Your task to perform on an android device: open a bookmark in the chrome app Image 0: 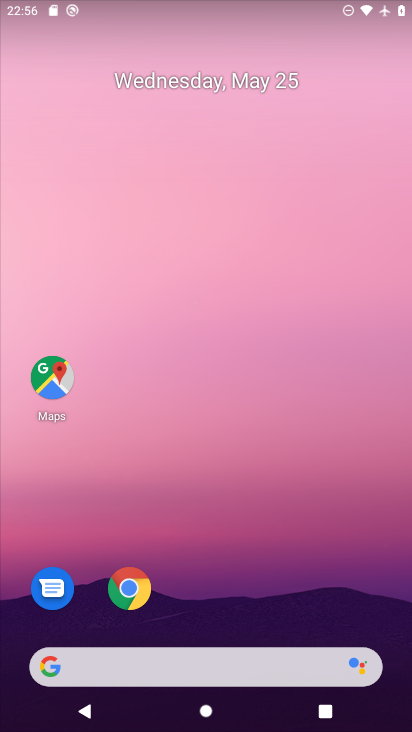
Step 0: click (122, 587)
Your task to perform on an android device: open a bookmark in the chrome app Image 1: 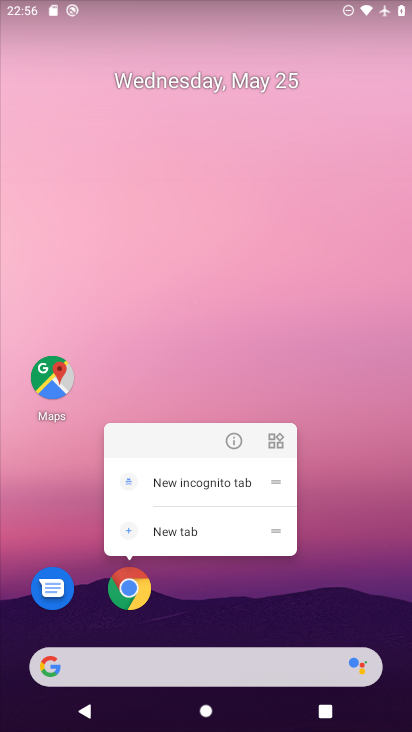
Step 1: click (119, 593)
Your task to perform on an android device: open a bookmark in the chrome app Image 2: 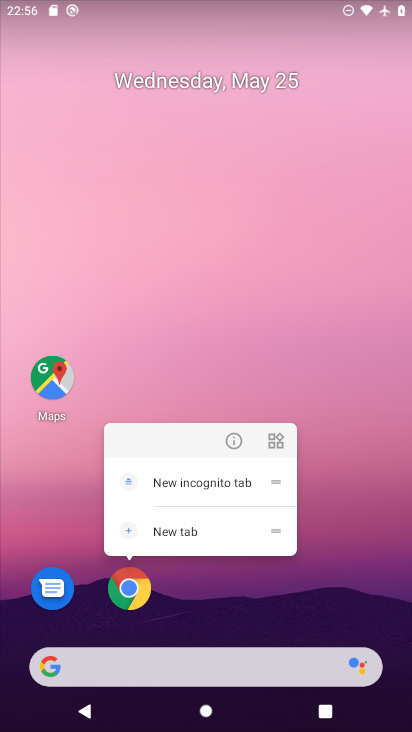
Step 2: click (267, 585)
Your task to perform on an android device: open a bookmark in the chrome app Image 3: 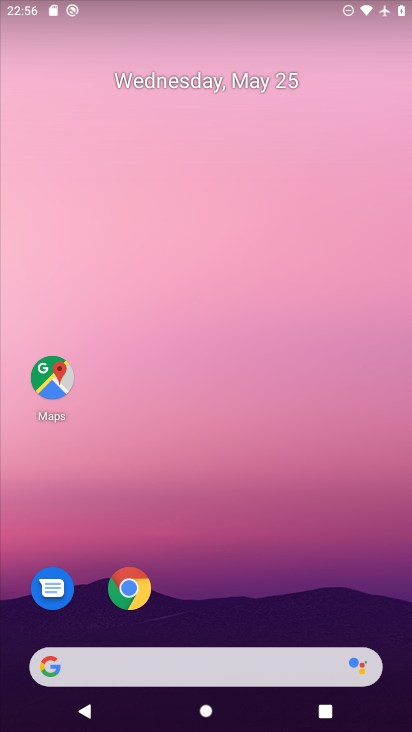
Step 3: drag from (273, 592) to (353, 65)
Your task to perform on an android device: open a bookmark in the chrome app Image 4: 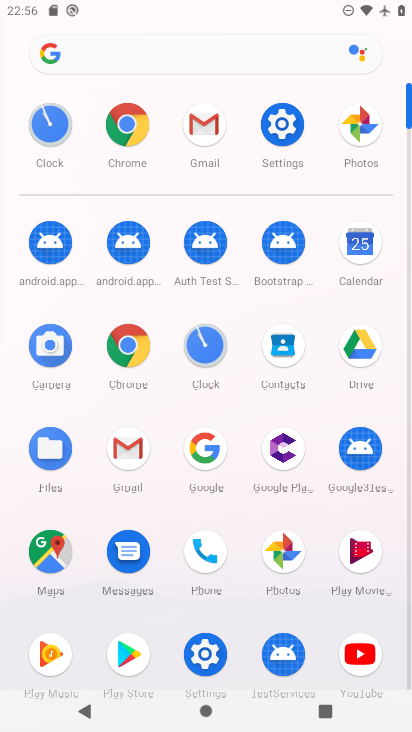
Step 4: click (124, 346)
Your task to perform on an android device: open a bookmark in the chrome app Image 5: 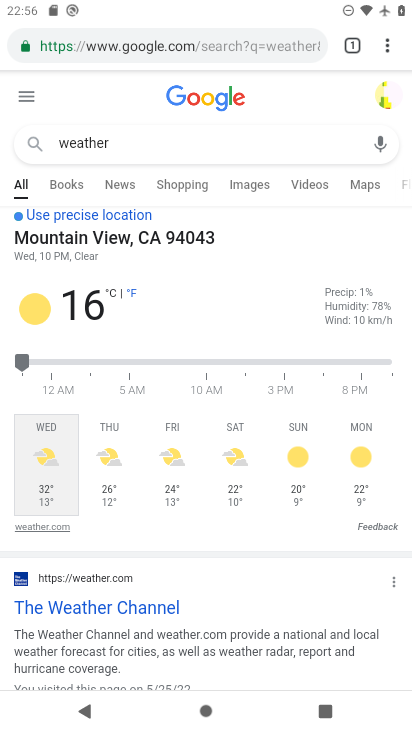
Step 5: task complete